Your task to perform on an android device: Show me popular games on the Play Store Image 0: 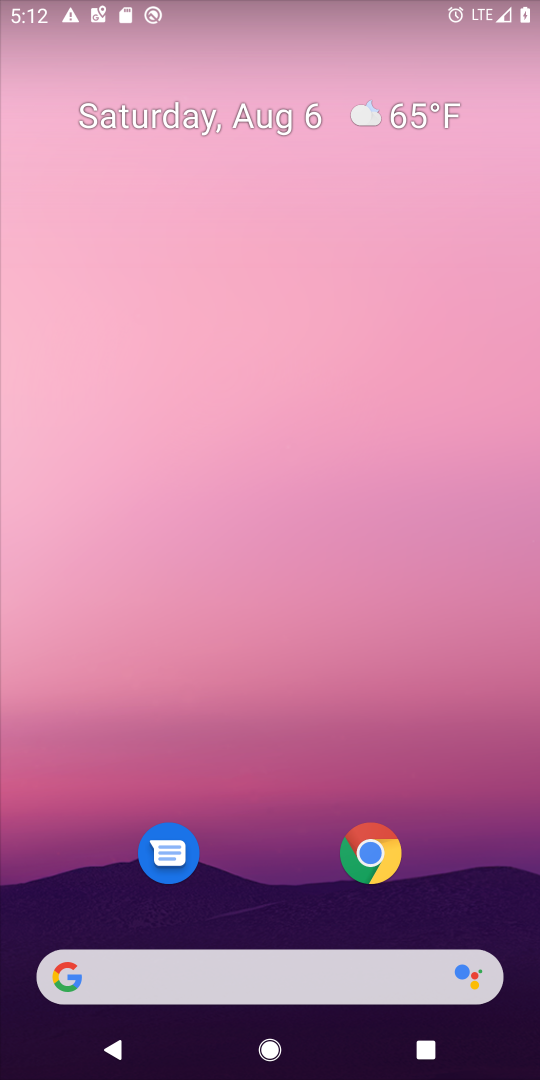
Step 0: drag from (339, 372) to (372, 1)
Your task to perform on an android device: Show me popular games on the Play Store Image 1: 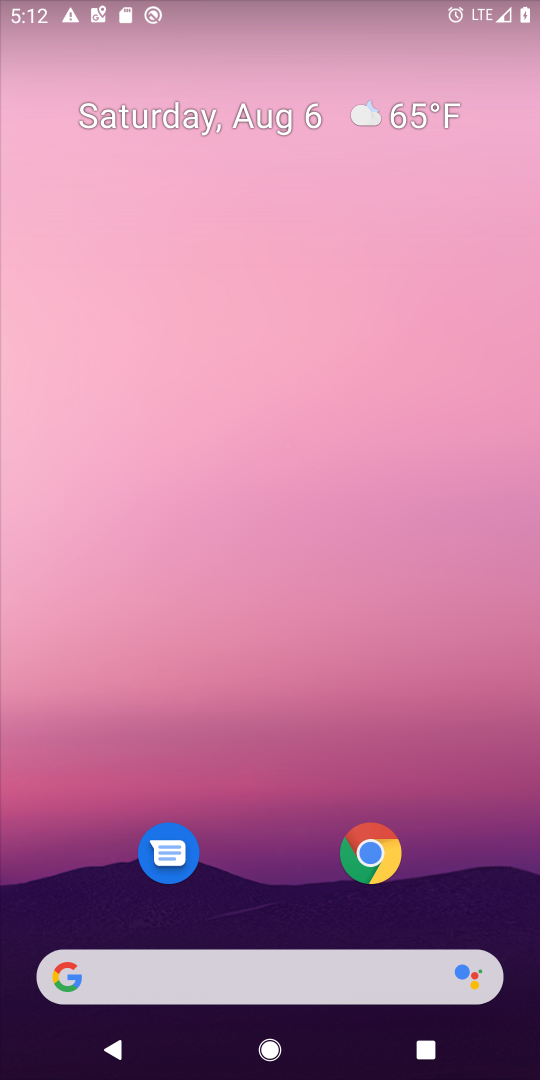
Step 1: drag from (279, 893) to (309, 148)
Your task to perform on an android device: Show me popular games on the Play Store Image 2: 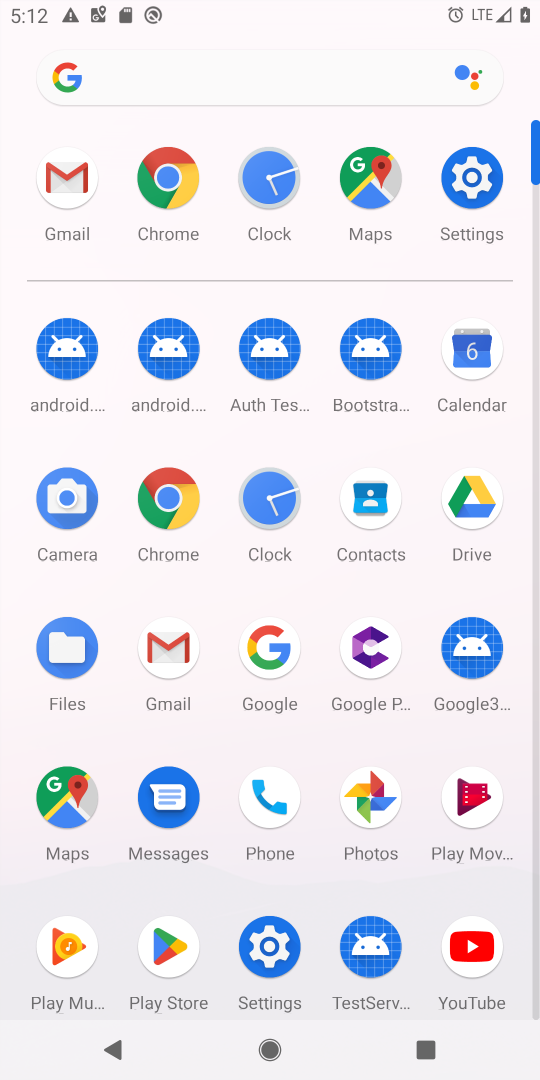
Step 2: click (158, 952)
Your task to perform on an android device: Show me popular games on the Play Store Image 3: 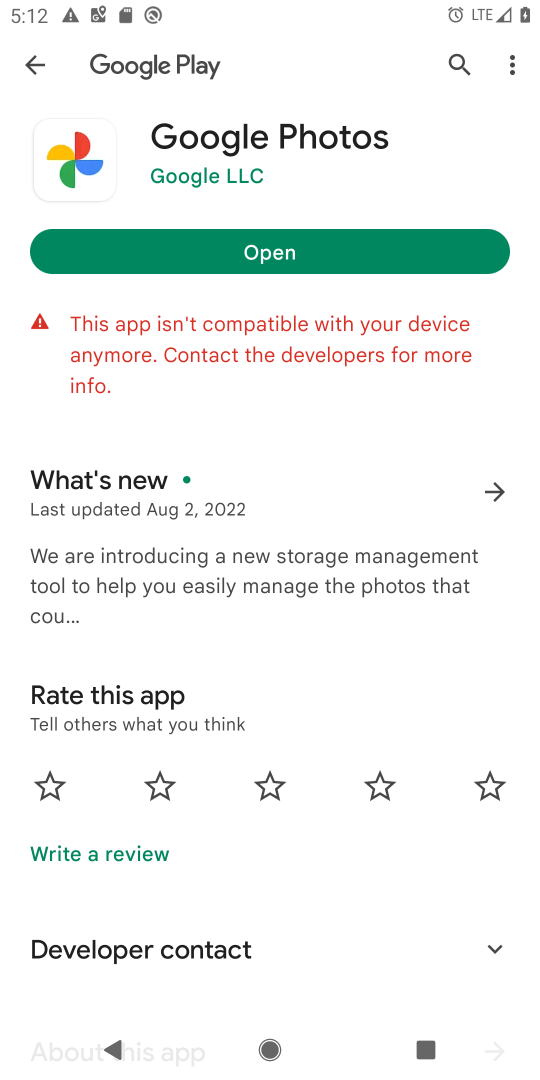
Step 3: click (38, 63)
Your task to perform on an android device: Show me popular games on the Play Store Image 4: 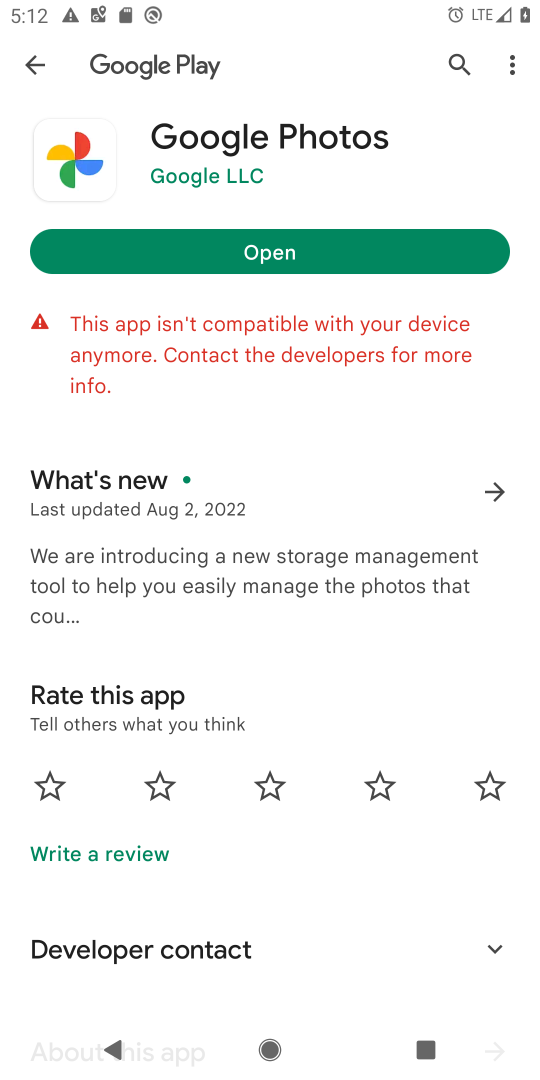
Step 4: click (39, 57)
Your task to perform on an android device: Show me popular games on the Play Store Image 5: 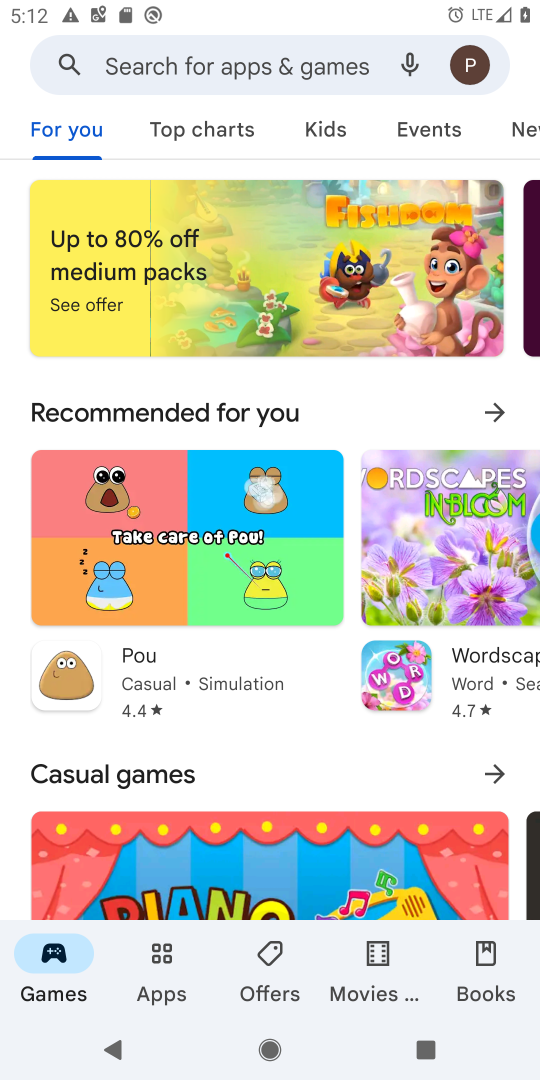
Step 5: drag from (142, 810) to (258, 208)
Your task to perform on an android device: Show me popular games on the Play Store Image 6: 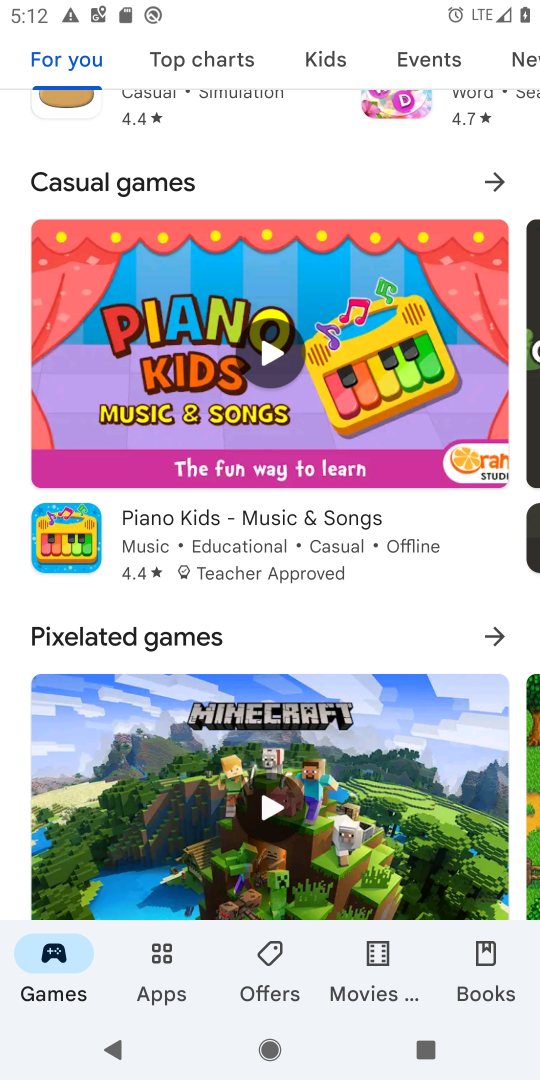
Step 6: drag from (168, 783) to (350, 59)
Your task to perform on an android device: Show me popular games on the Play Store Image 7: 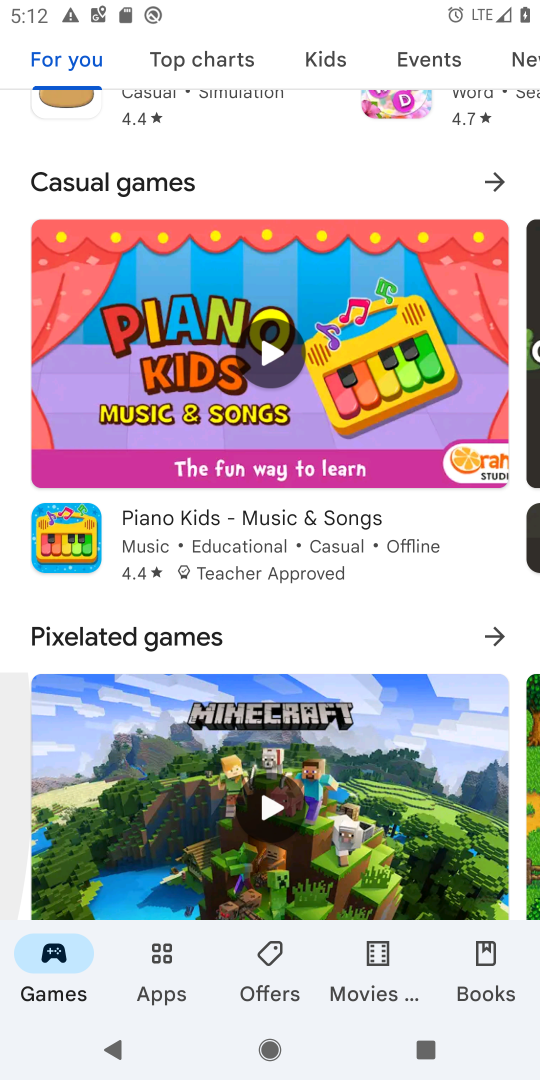
Step 7: drag from (283, 653) to (385, 244)
Your task to perform on an android device: Show me popular games on the Play Store Image 8: 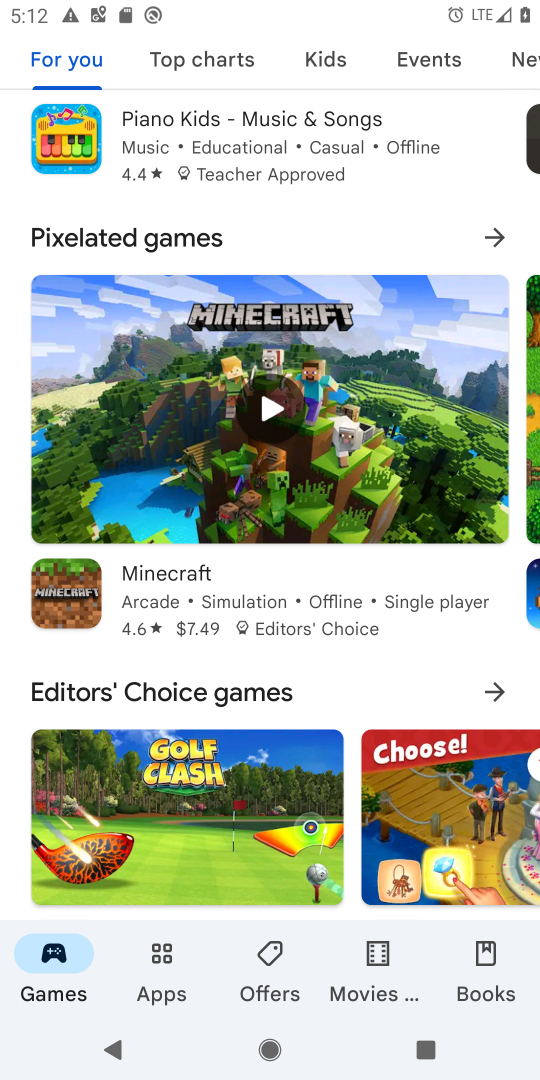
Step 8: drag from (169, 835) to (348, 104)
Your task to perform on an android device: Show me popular games on the Play Store Image 9: 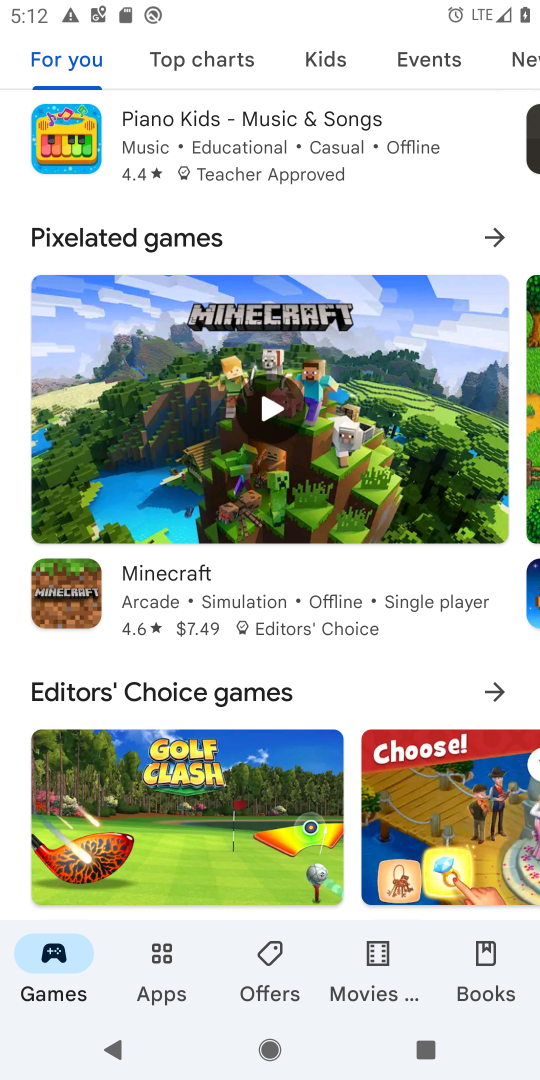
Step 9: drag from (25, 817) to (35, 260)
Your task to perform on an android device: Show me popular games on the Play Store Image 10: 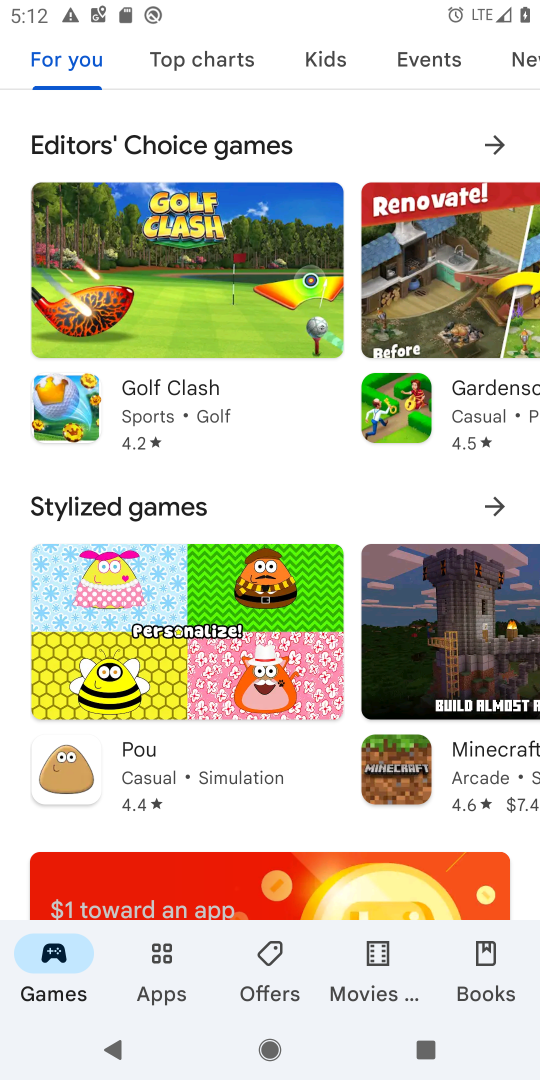
Step 10: click (20, 860)
Your task to perform on an android device: Show me popular games on the Play Store Image 11: 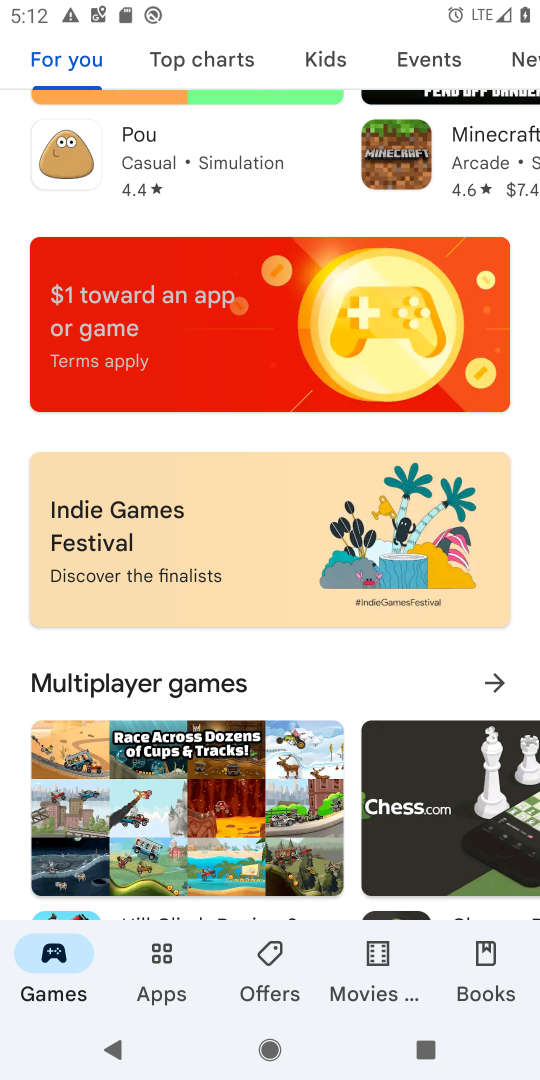
Step 11: drag from (5, 878) to (3, 382)
Your task to perform on an android device: Show me popular games on the Play Store Image 12: 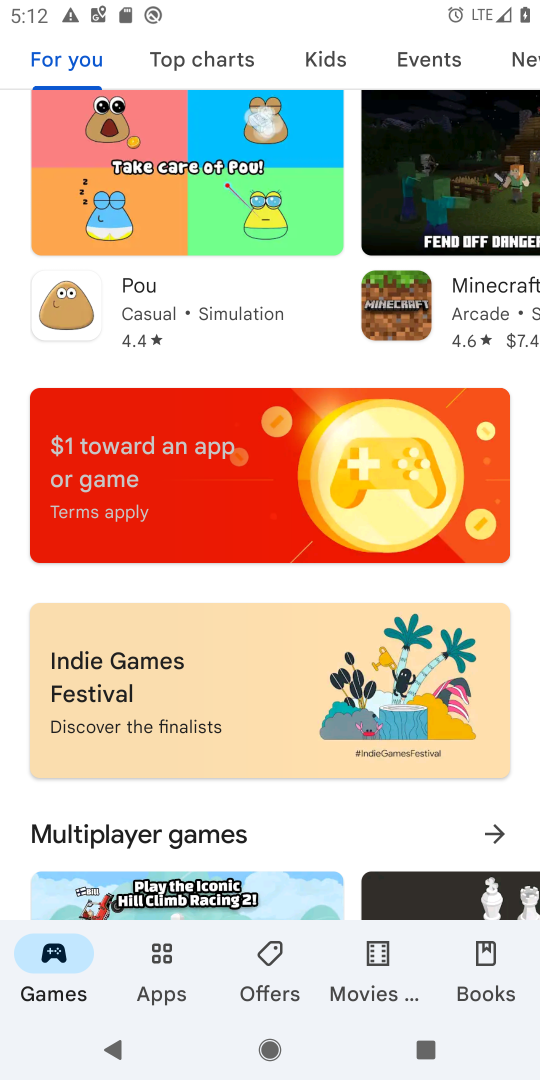
Step 12: drag from (16, 903) to (27, 184)
Your task to perform on an android device: Show me popular games on the Play Store Image 13: 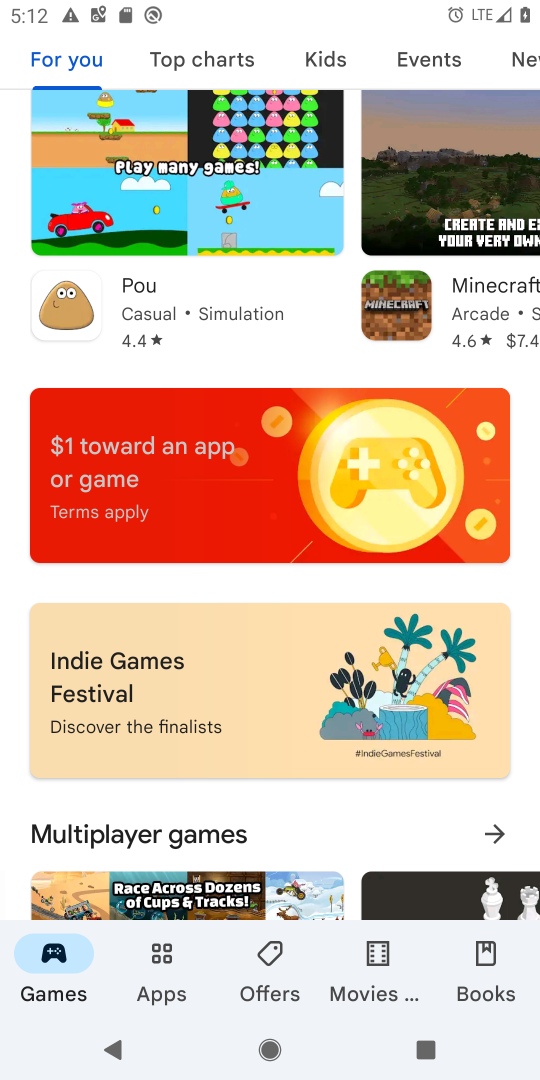
Step 13: drag from (26, 764) to (37, 206)
Your task to perform on an android device: Show me popular games on the Play Store Image 14: 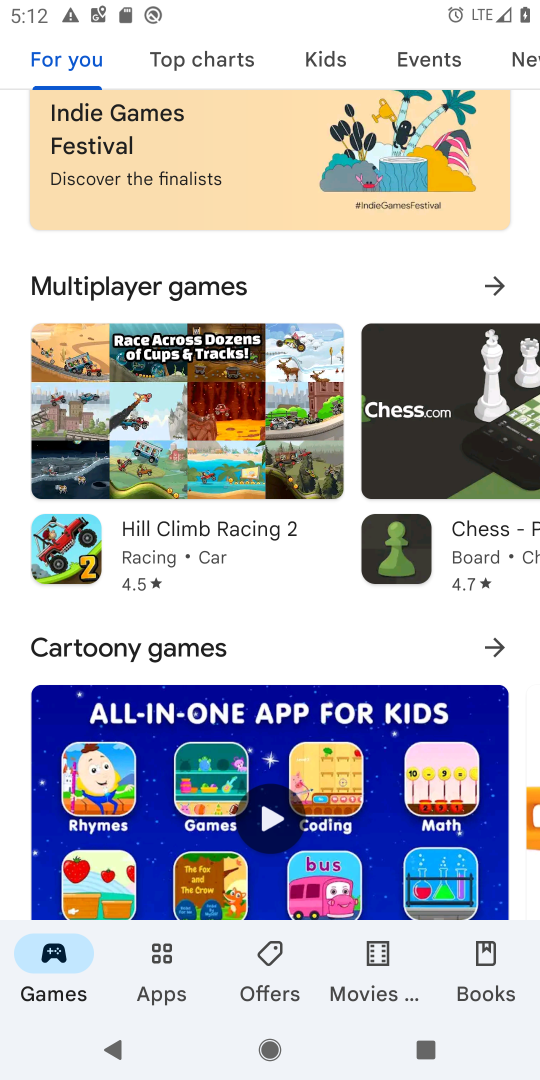
Step 14: drag from (34, 785) to (63, 232)
Your task to perform on an android device: Show me popular games on the Play Store Image 15: 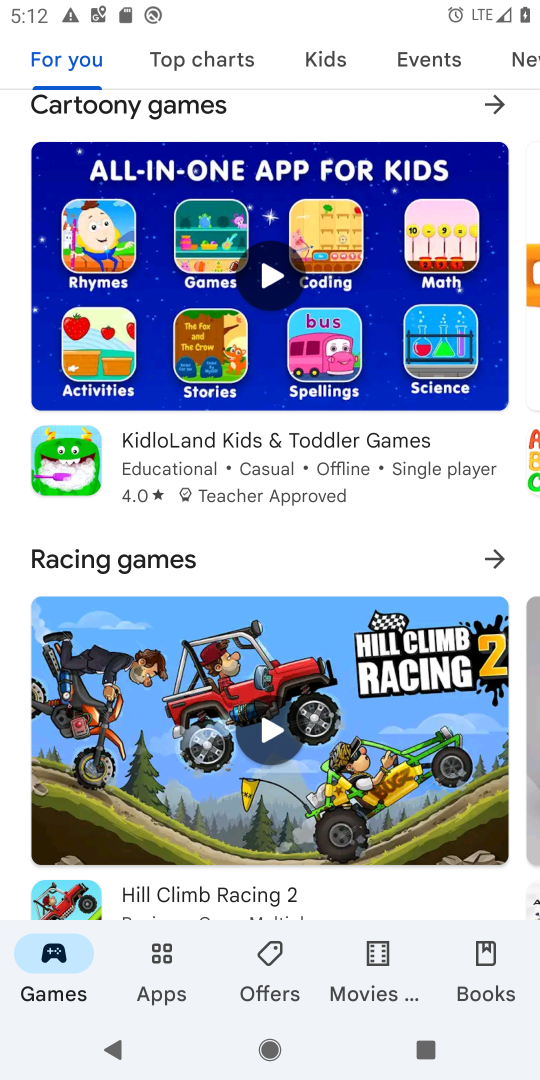
Step 15: drag from (12, 929) to (5, 201)
Your task to perform on an android device: Show me popular games on the Play Store Image 16: 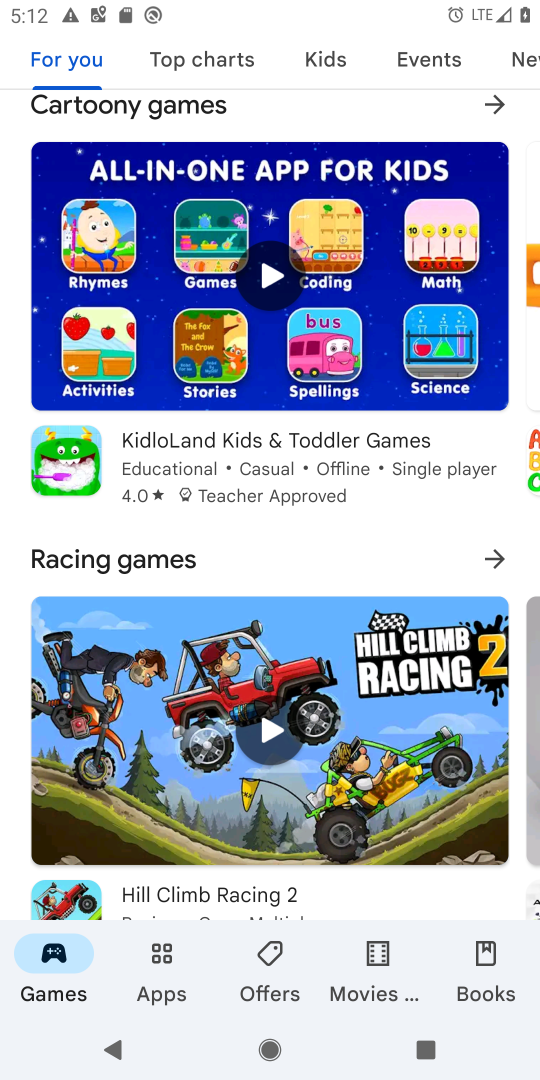
Step 16: drag from (18, 742) to (25, 187)
Your task to perform on an android device: Show me popular games on the Play Store Image 17: 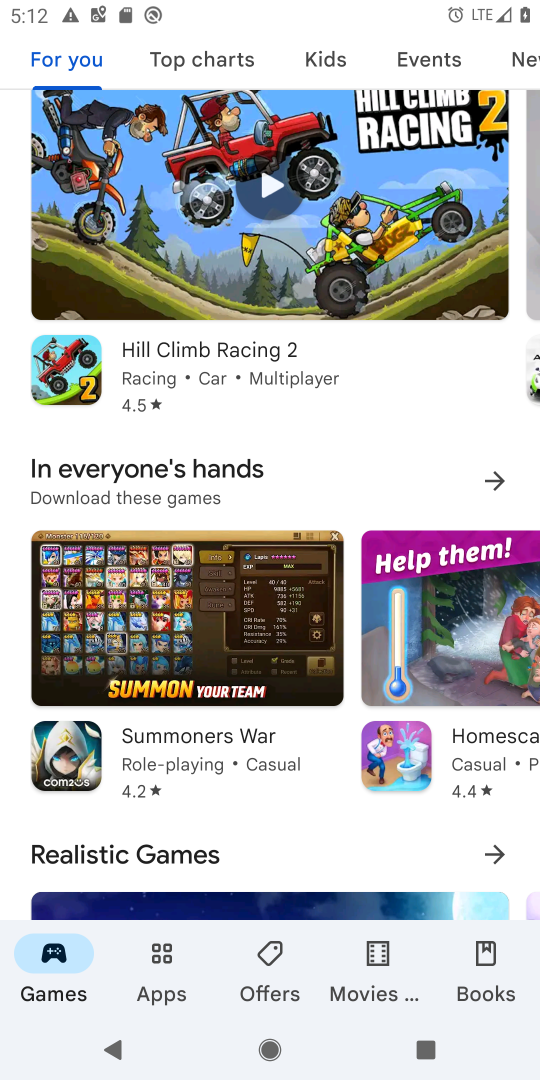
Step 17: drag from (17, 729) to (23, 137)
Your task to perform on an android device: Show me popular games on the Play Store Image 18: 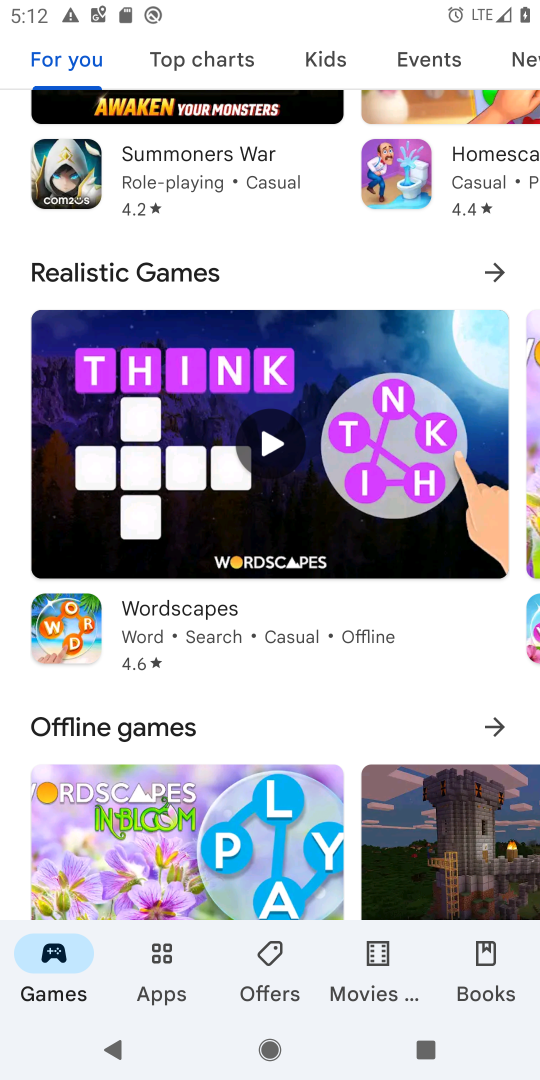
Step 18: drag from (13, 803) to (52, 205)
Your task to perform on an android device: Show me popular games on the Play Store Image 19: 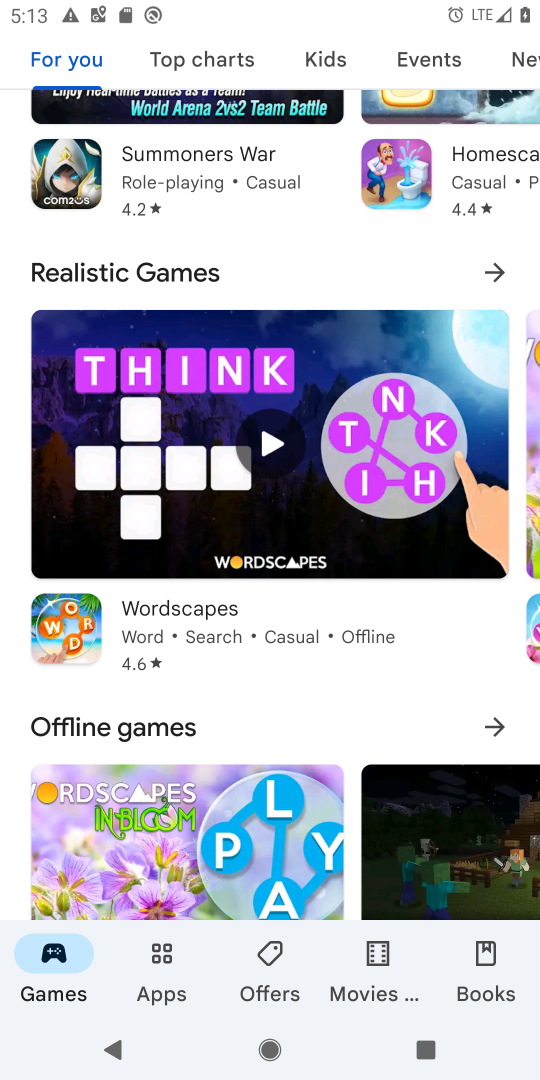
Step 19: drag from (24, 699) to (30, 192)
Your task to perform on an android device: Show me popular games on the Play Store Image 20: 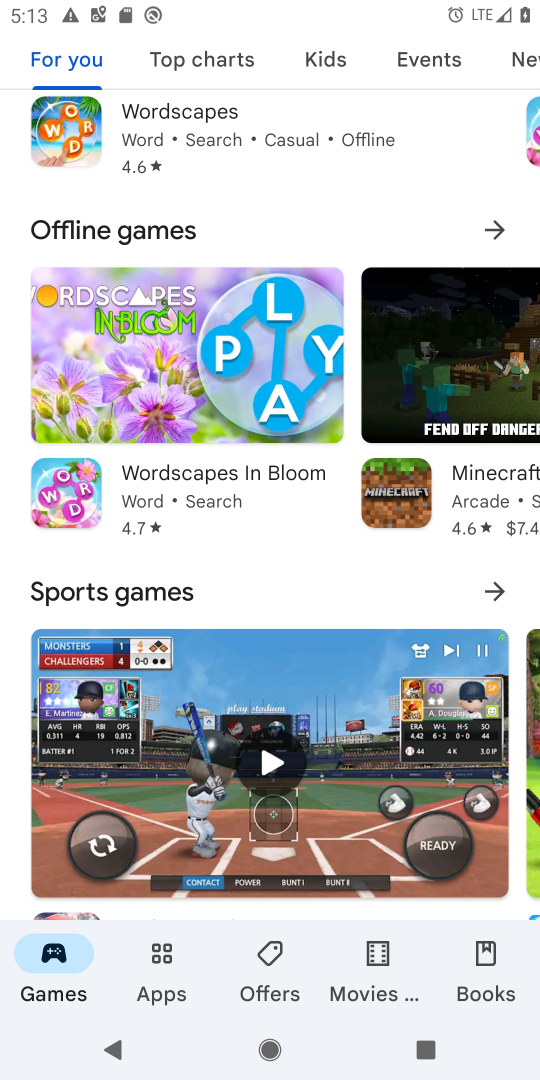
Step 20: drag from (16, 762) to (16, 141)
Your task to perform on an android device: Show me popular games on the Play Store Image 21: 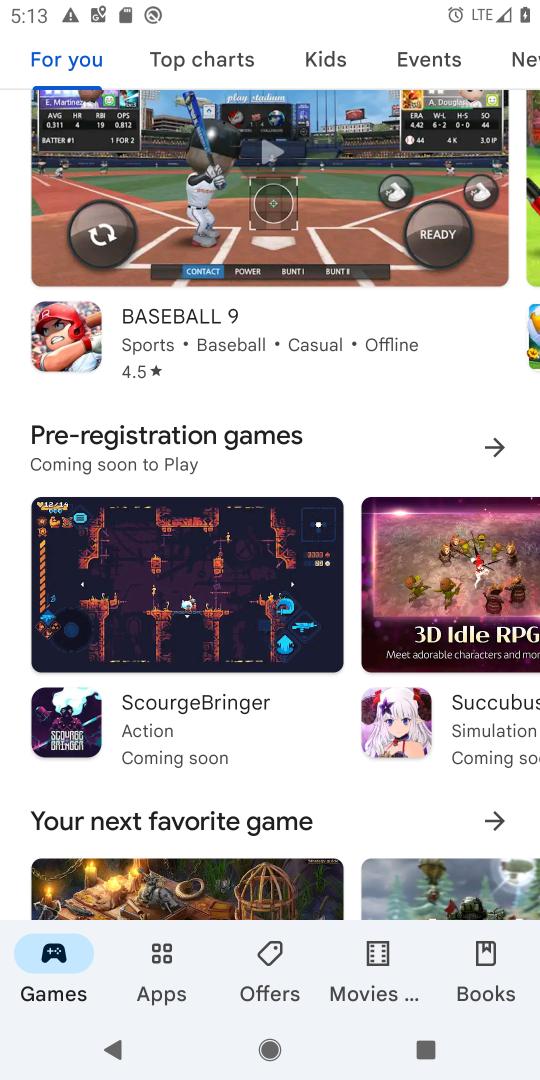
Step 21: drag from (12, 855) to (16, 193)
Your task to perform on an android device: Show me popular games on the Play Store Image 22: 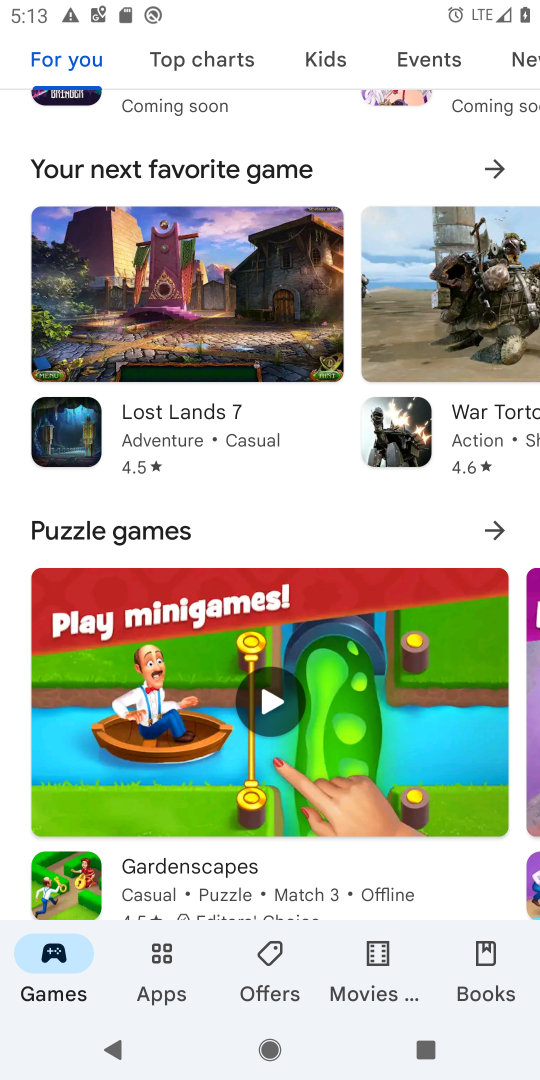
Step 22: drag from (14, 759) to (14, 172)
Your task to perform on an android device: Show me popular games on the Play Store Image 23: 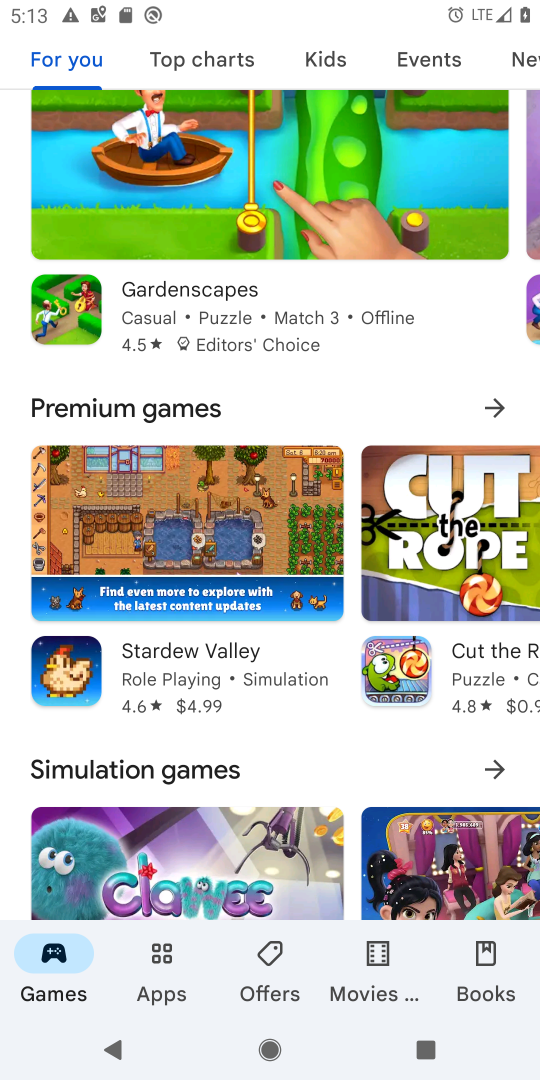
Step 23: drag from (14, 788) to (47, 167)
Your task to perform on an android device: Show me popular games on the Play Store Image 24: 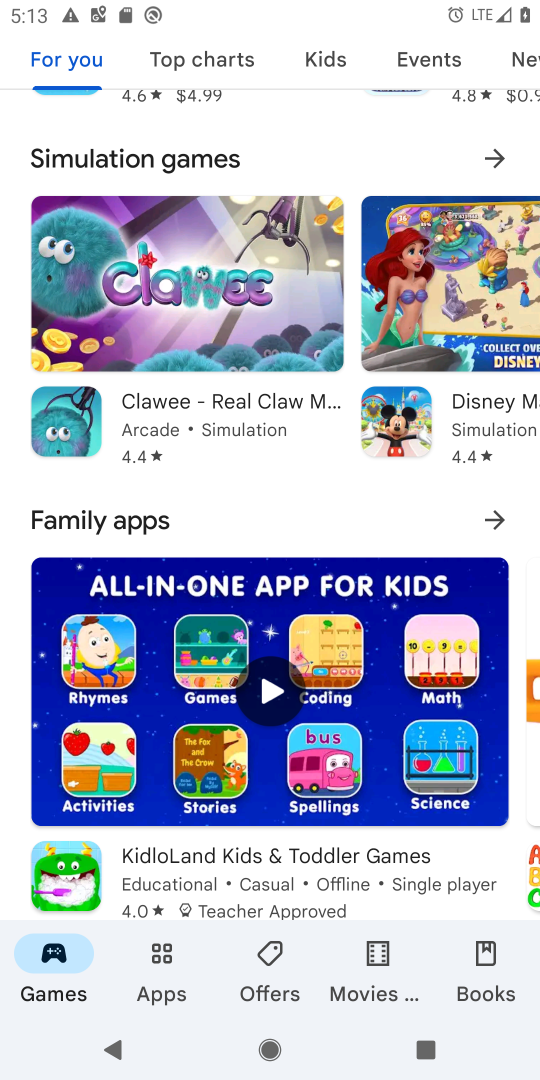
Step 24: drag from (19, 845) to (16, 160)
Your task to perform on an android device: Show me popular games on the Play Store Image 25: 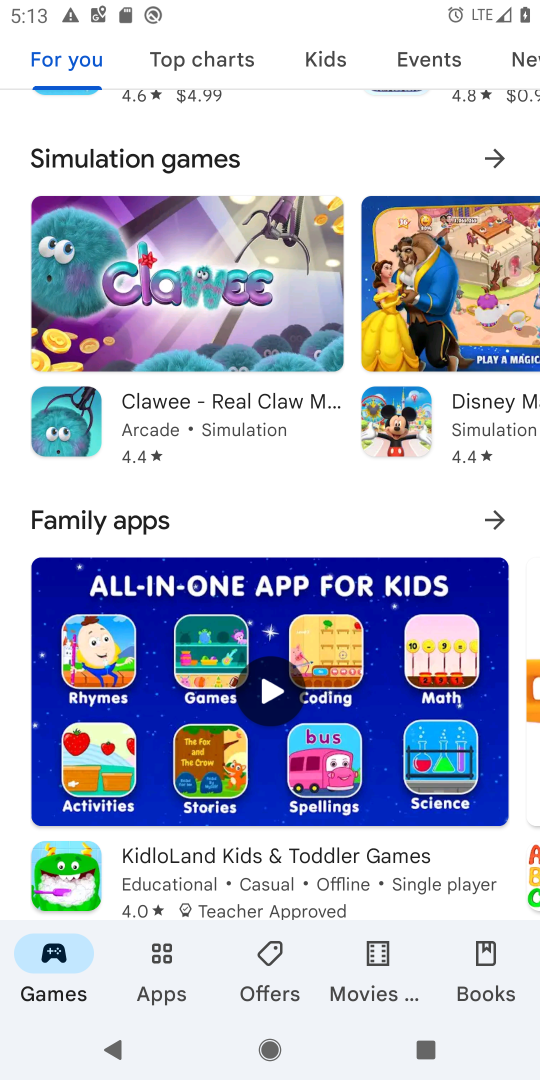
Step 25: drag from (30, 834) to (30, 253)
Your task to perform on an android device: Show me popular games on the Play Store Image 26: 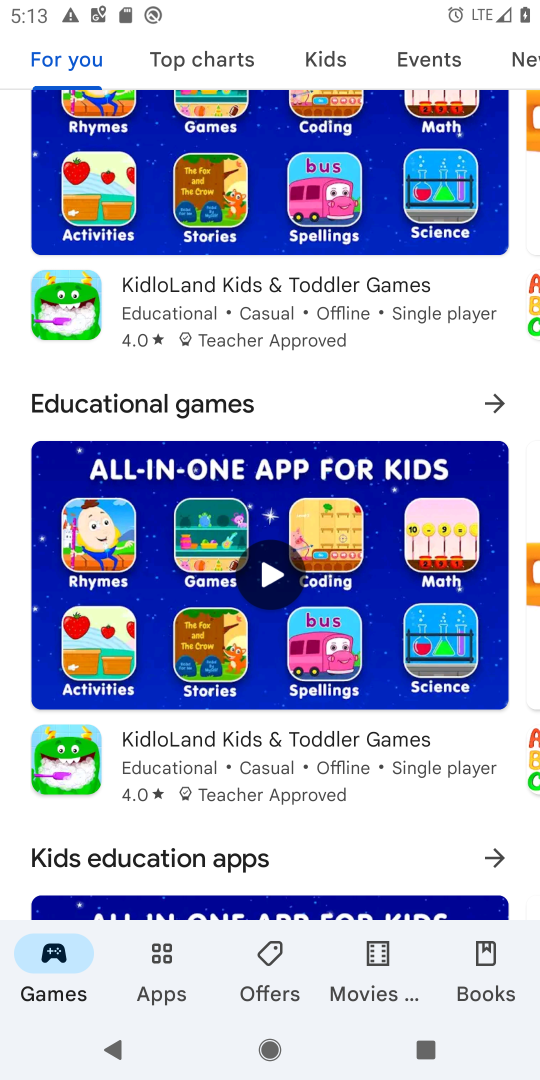
Step 26: drag from (19, 845) to (17, 225)
Your task to perform on an android device: Show me popular games on the Play Store Image 27: 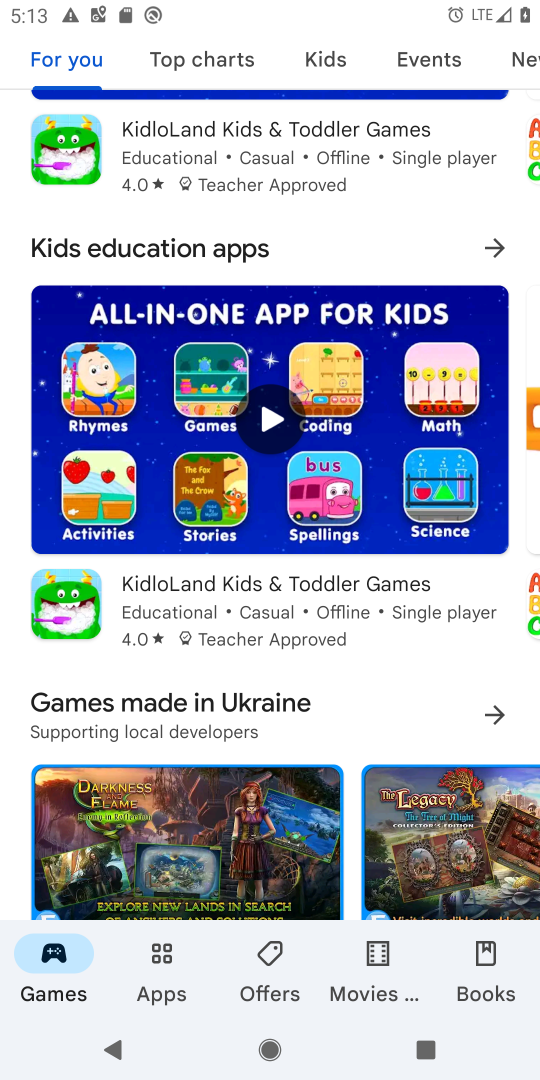
Step 27: drag from (14, 846) to (60, 256)
Your task to perform on an android device: Show me popular games on the Play Store Image 28: 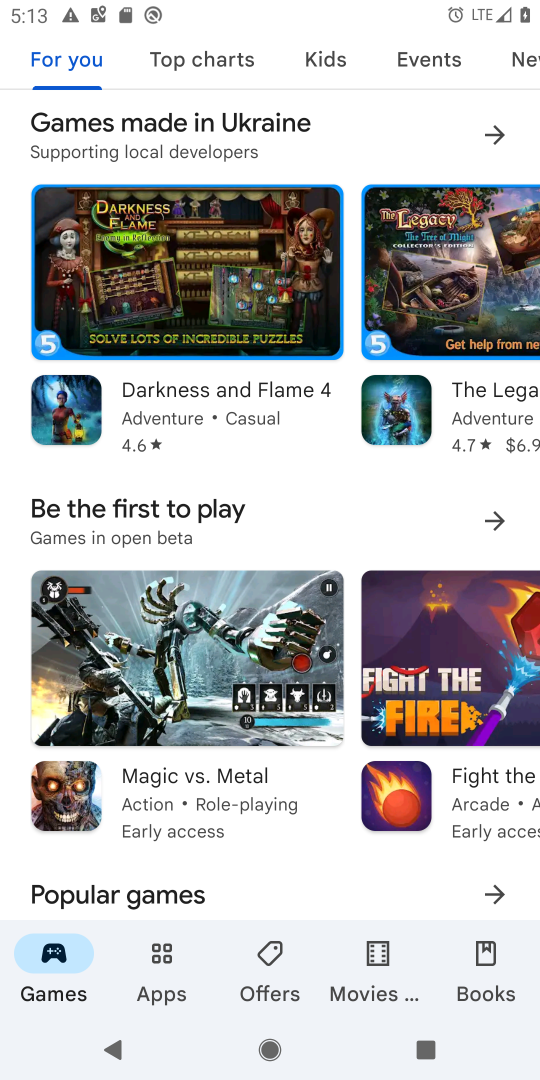
Step 28: drag from (19, 863) to (18, 438)
Your task to perform on an android device: Show me popular games on the Play Store Image 29: 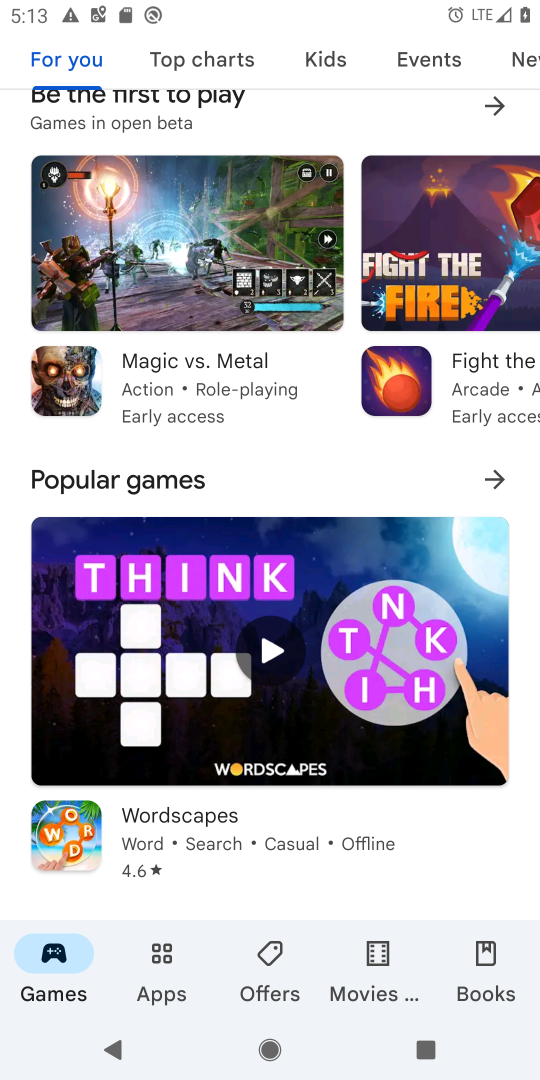
Step 29: click (484, 465)
Your task to perform on an android device: Show me popular games on the Play Store Image 30: 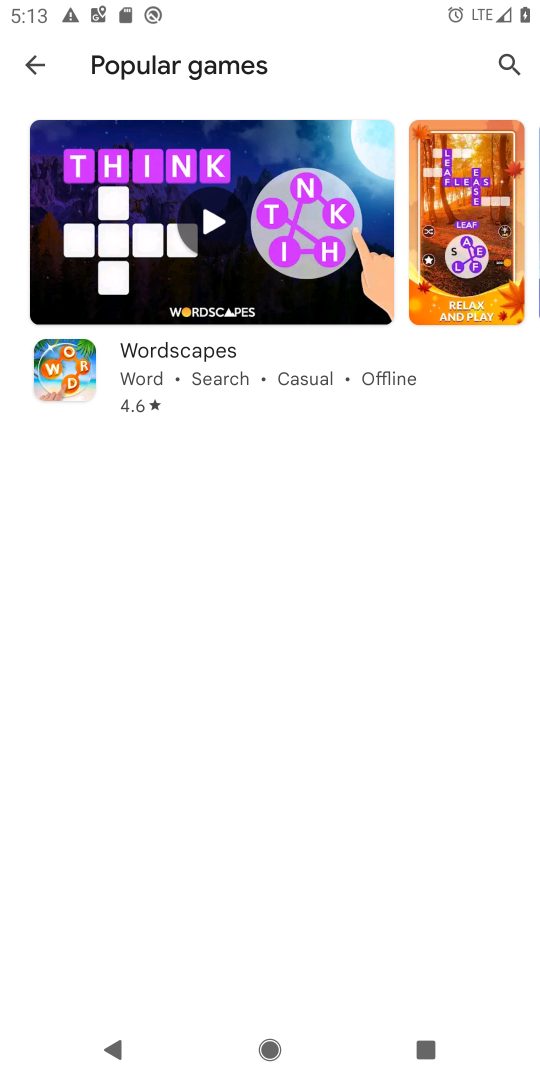
Step 30: task complete